Your task to perform on an android device: Open calendar and show me the first week of next month Image 0: 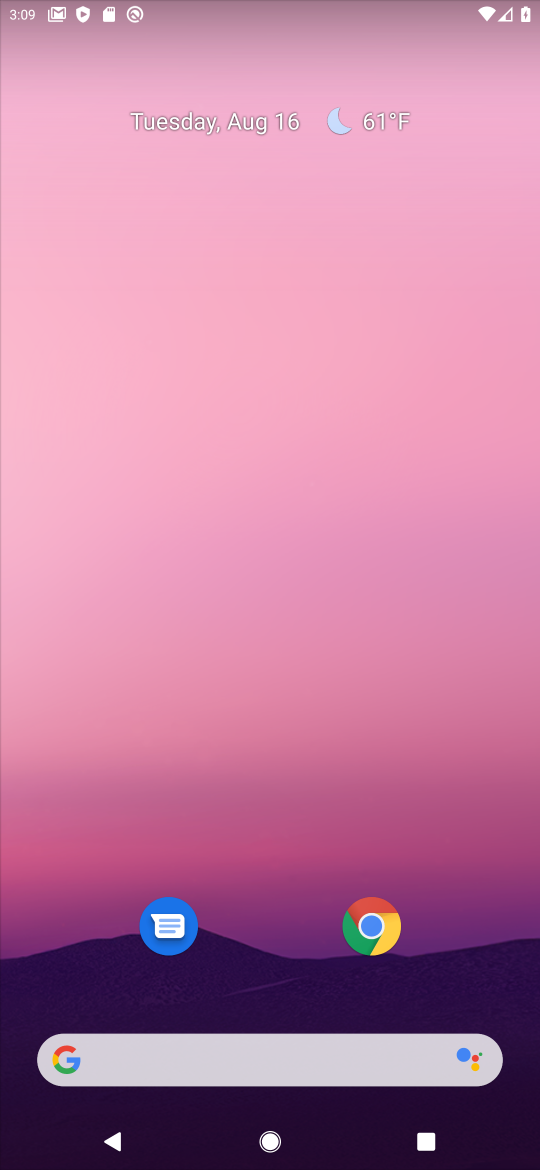
Step 0: drag from (261, 1012) to (267, 34)
Your task to perform on an android device: Open calendar and show me the first week of next month Image 1: 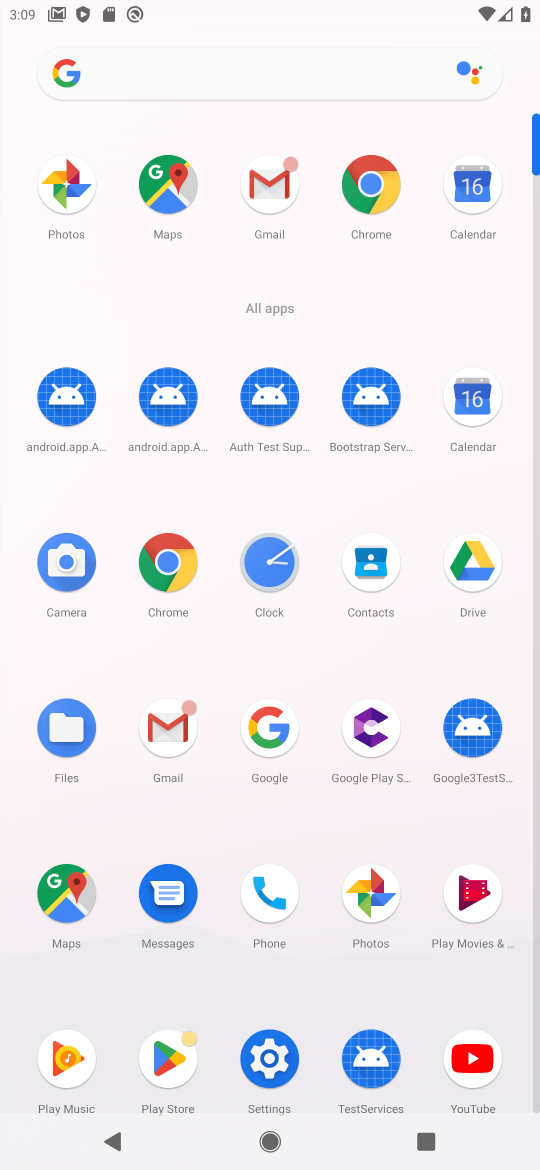
Step 1: click (484, 397)
Your task to perform on an android device: Open calendar and show me the first week of next month Image 2: 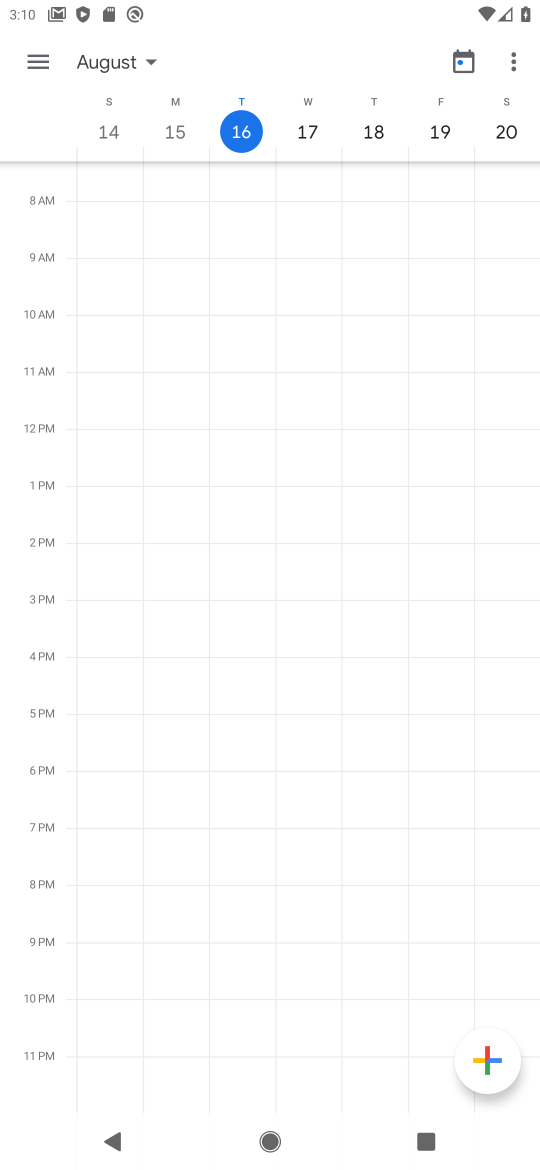
Step 2: click (146, 61)
Your task to perform on an android device: Open calendar and show me the first week of next month Image 3: 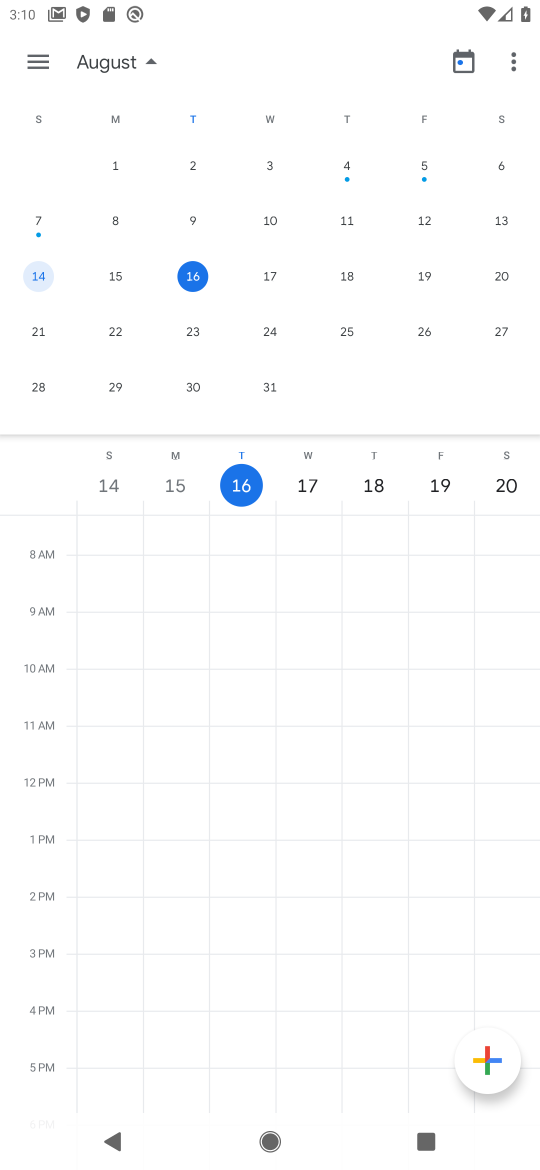
Step 3: drag from (445, 292) to (13, 282)
Your task to perform on an android device: Open calendar and show me the first week of next month Image 4: 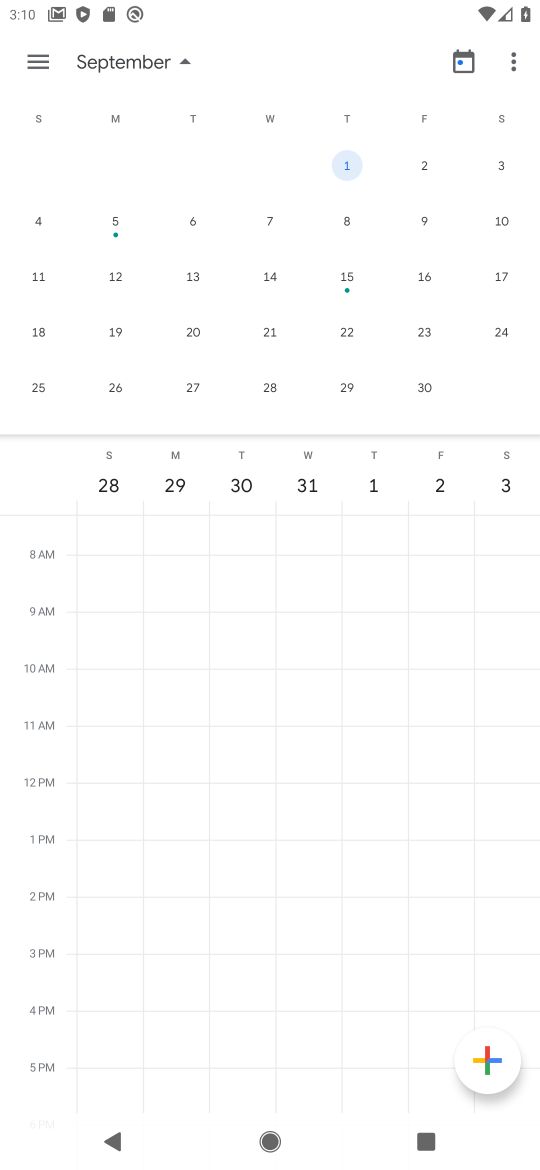
Step 4: click (44, 226)
Your task to perform on an android device: Open calendar and show me the first week of next month Image 5: 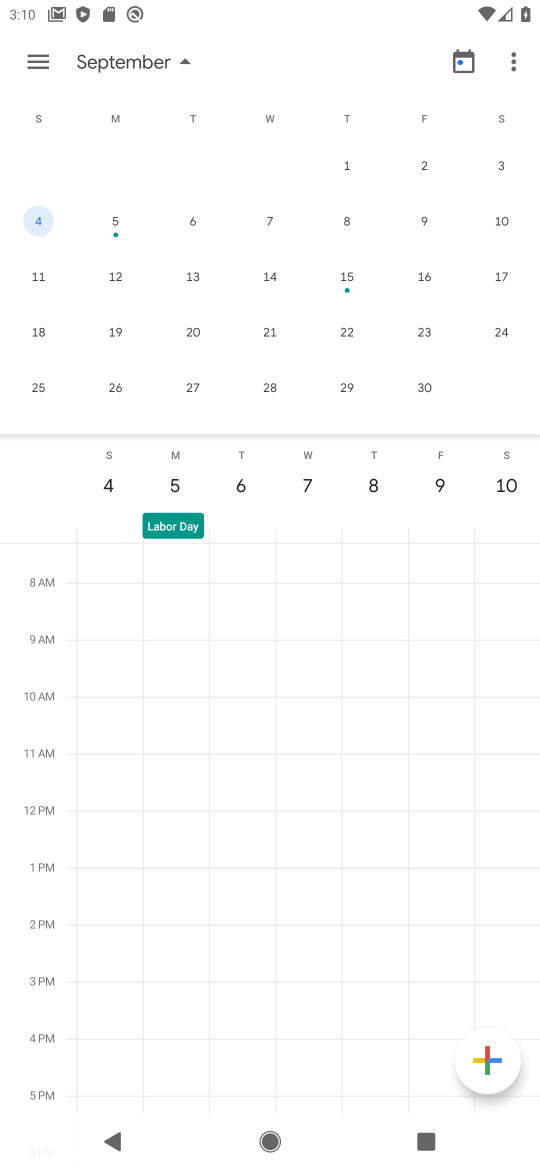
Step 5: click (34, 58)
Your task to perform on an android device: Open calendar and show me the first week of next month Image 6: 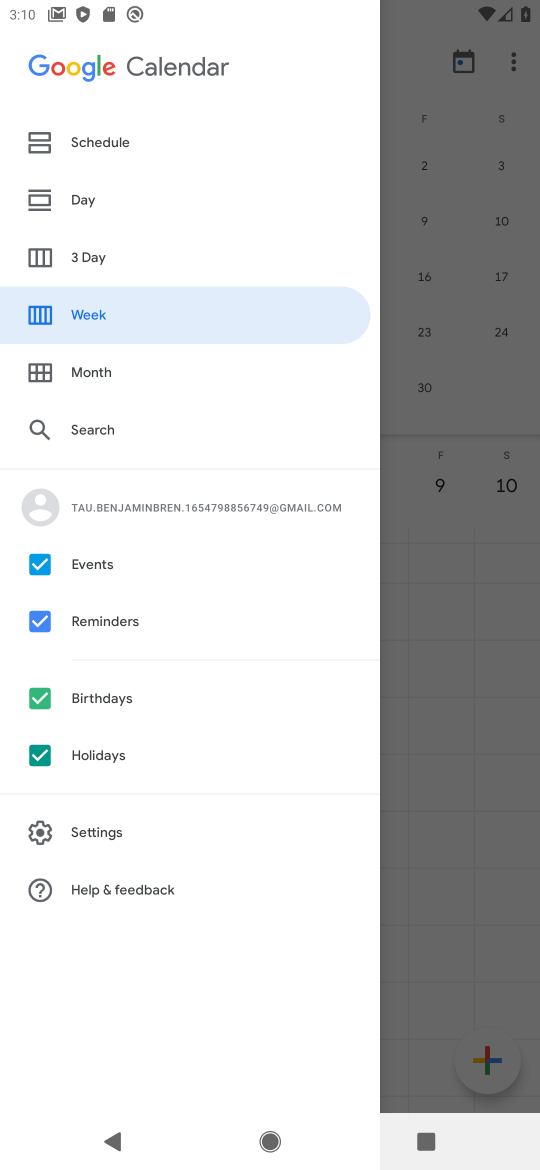
Step 6: click (92, 313)
Your task to perform on an android device: Open calendar and show me the first week of next month Image 7: 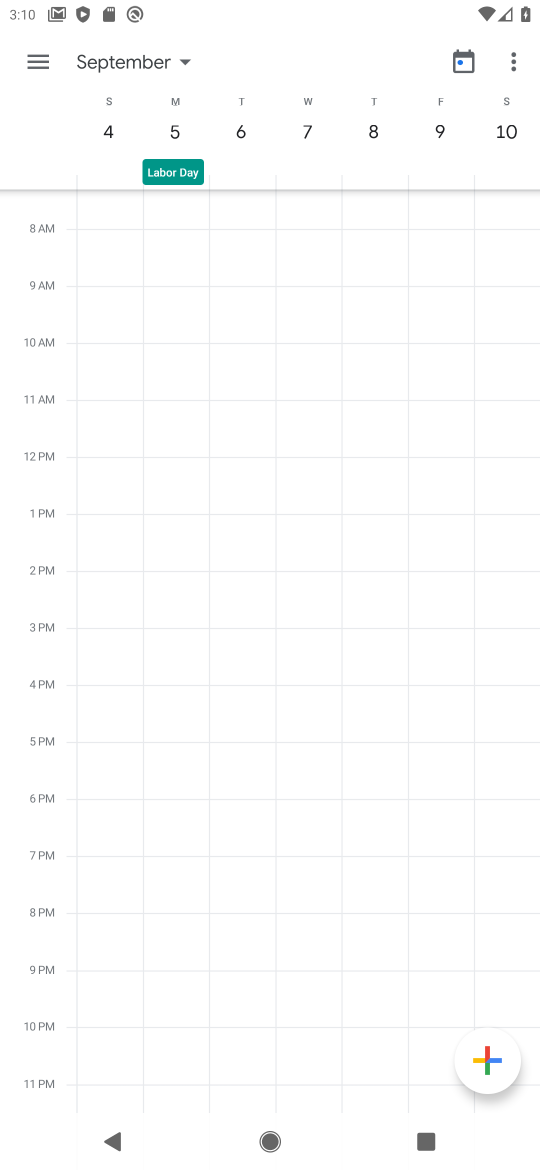
Step 7: task complete